Your task to perform on an android device: Go to Reddit.com Image 0: 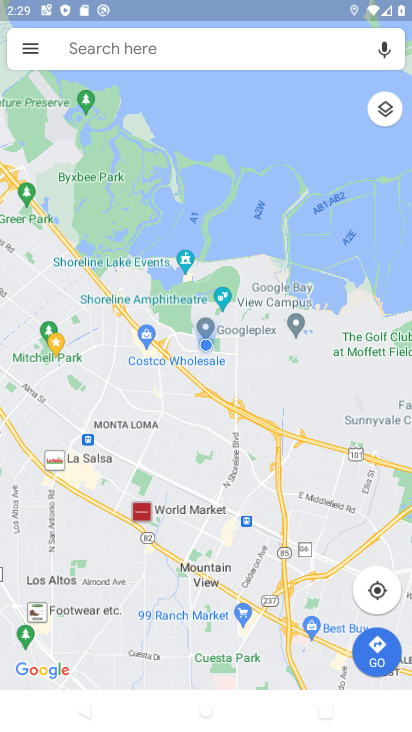
Step 0: press back button
Your task to perform on an android device: Go to Reddit.com Image 1: 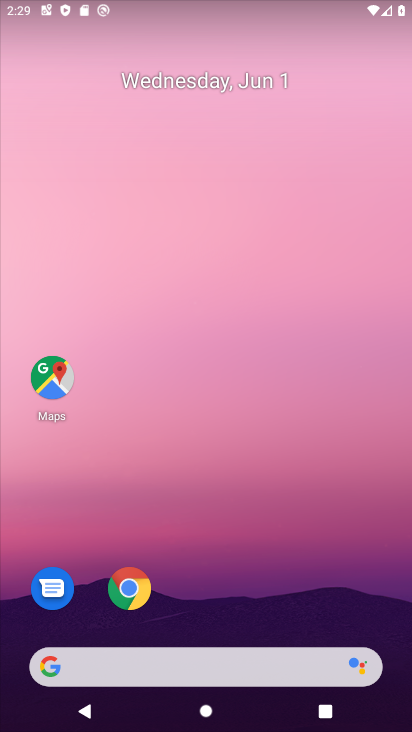
Step 1: click (130, 586)
Your task to perform on an android device: Go to Reddit.com Image 2: 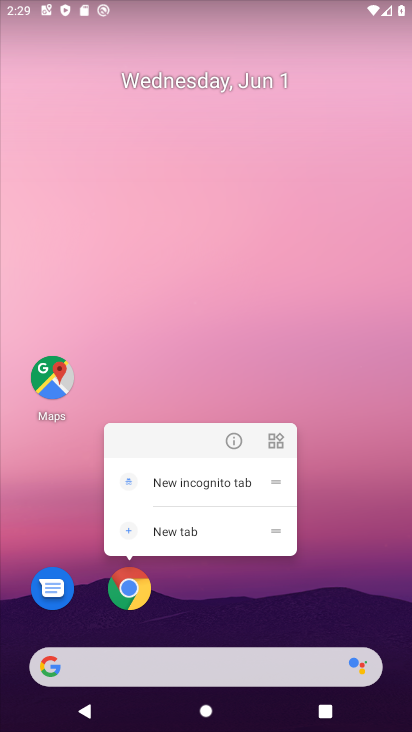
Step 2: click (129, 588)
Your task to perform on an android device: Go to Reddit.com Image 3: 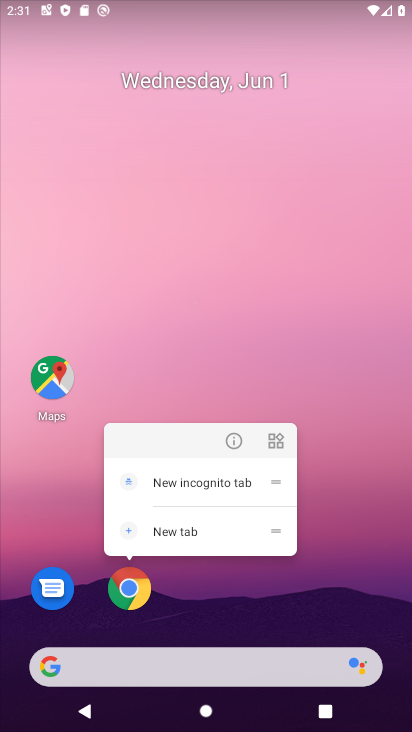
Step 3: click (136, 589)
Your task to perform on an android device: Go to Reddit.com Image 4: 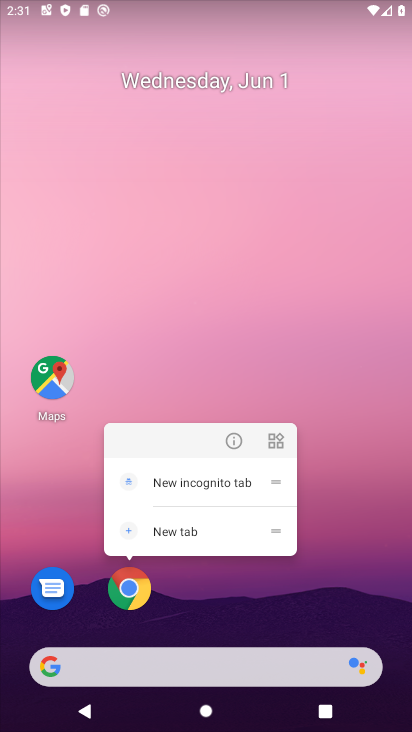
Step 4: click (137, 583)
Your task to perform on an android device: Go to Reddit.com Image 5: 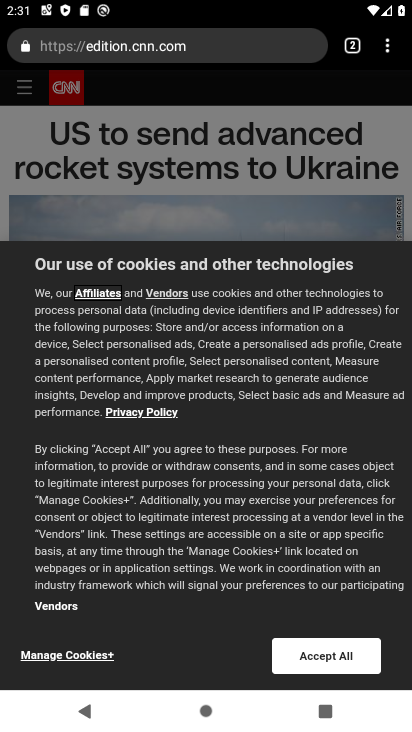
Step 5: click (354, 41)
Your task to perform on an android device: Go to Reddit.com Image 6: 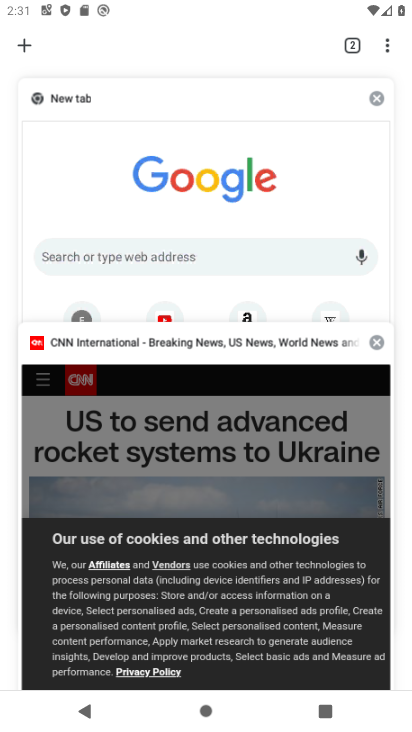
Step 6: click (55, 102)
Your task to perform on an android device: Go to Reddit.com Image 7: 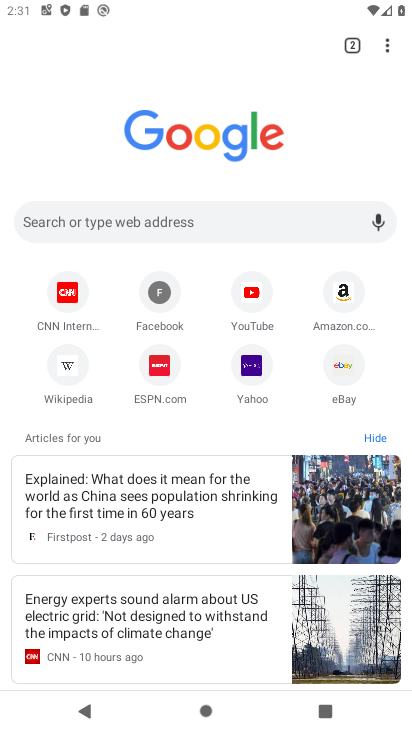
Step 7: click (85, 223)
Your task to perform on an android device: Go to Reddit.com Image 8: 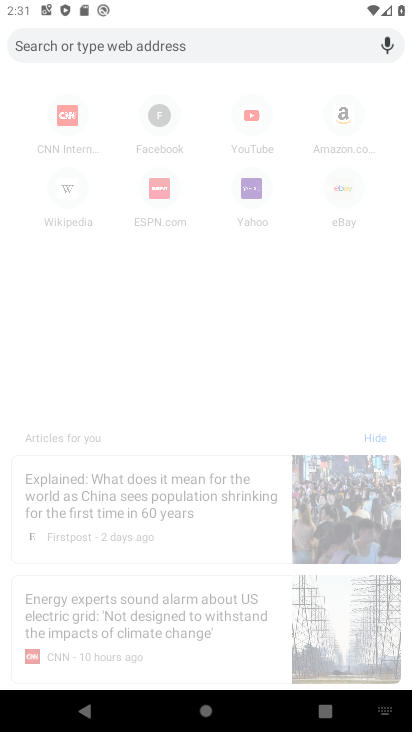
Step 8: type "reddit.com"
Your task to perform on an android device: Go to Reddit.com Image 9: 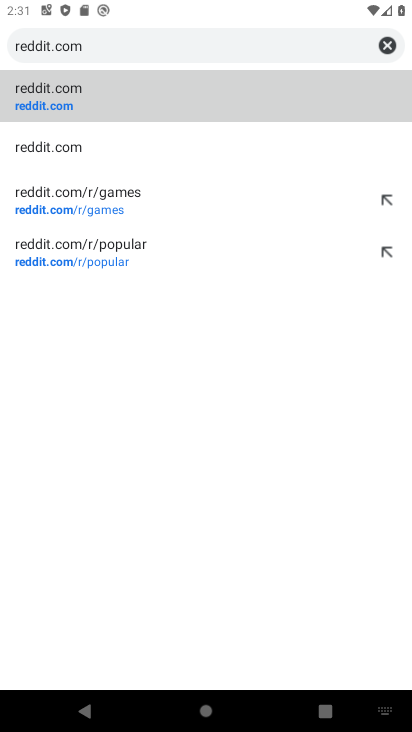
Step 9: click (85, 101)
Your task to perform on an android device: Go to Reddit.com Image 10: 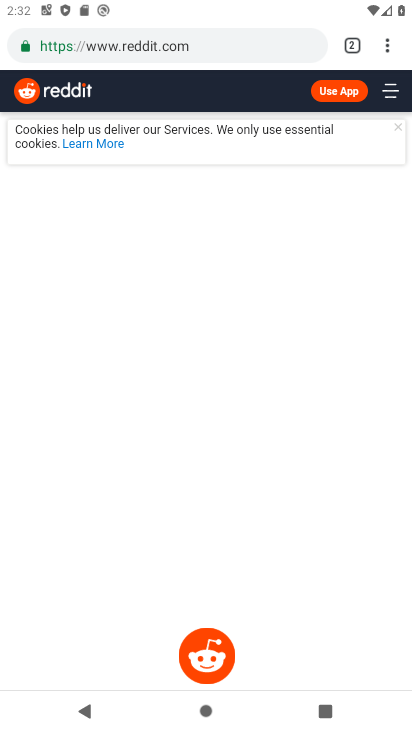
Step 10: task complete